Your task to perform on an android device: turn notification dots on Image 0: 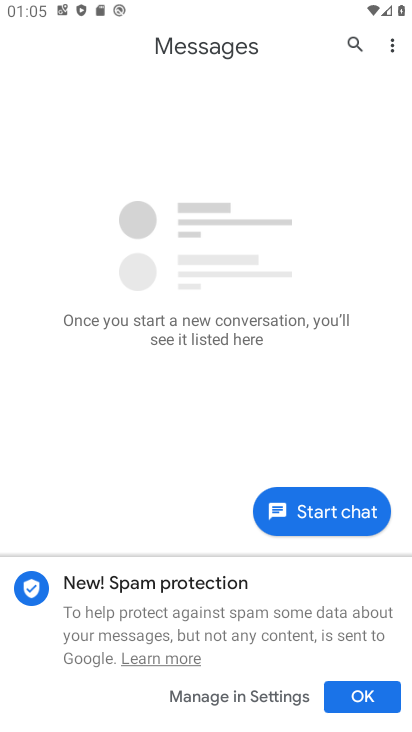
Step 0: press home button
Your task to perform on an android device: turn notification dots on Image 1: 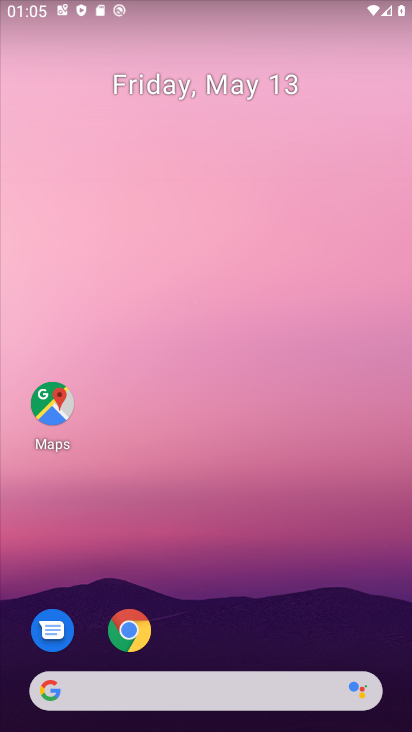
Step 1: drag from (180, 706) to (364, 104)
Your task to perform on an android device: turn notification dots on Image 2: 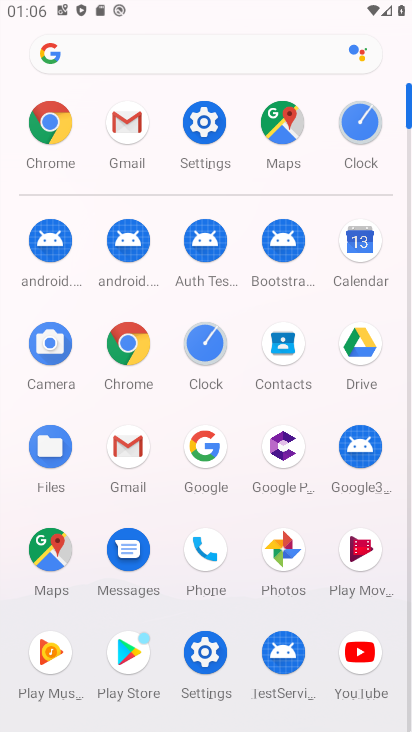
Step 2: click (217, 120)
Your task to perform on an android device: turn notification dots on Image 3: 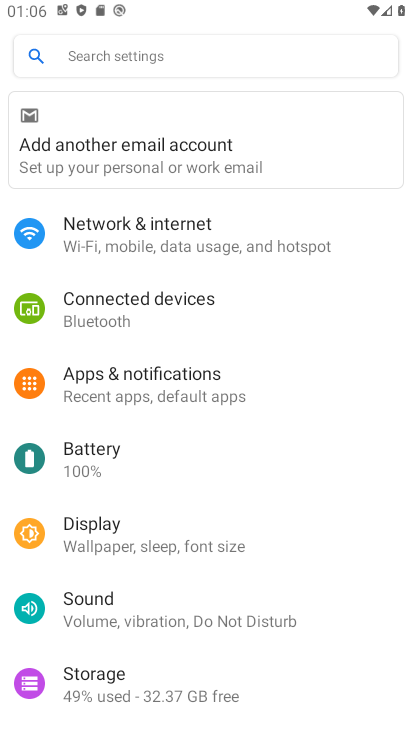
Step 3: click (151, 60)
Your task to perform on an android device: turn notification dots on Image 4: 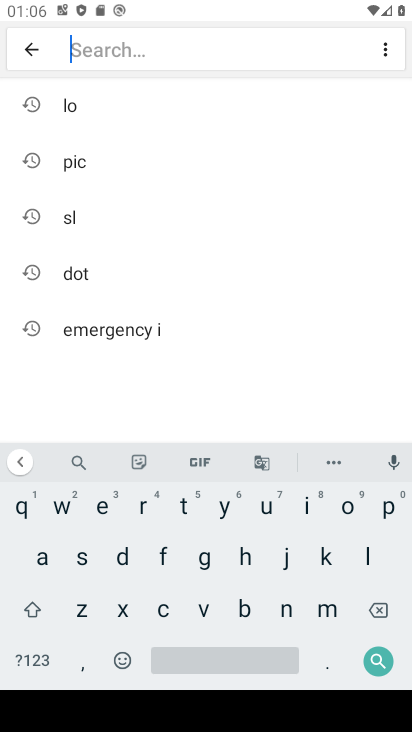
Step 4: click (111, 574)
Your task to perform on an android device: turn notification dots on Image 5: 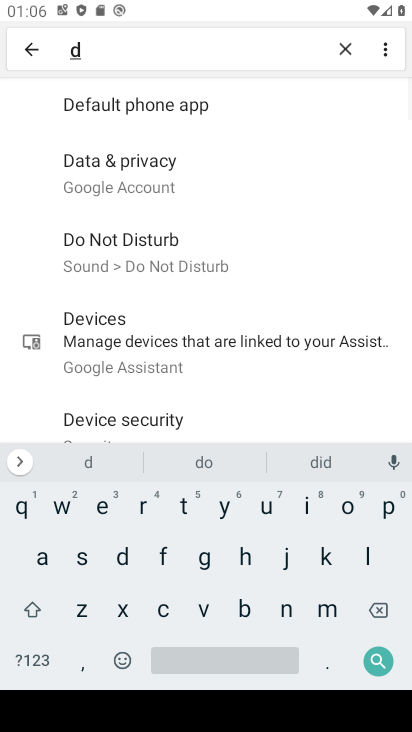
Step 5: click (344, 511)
Your task to perform on an android device: turn notification dots on Image 6: 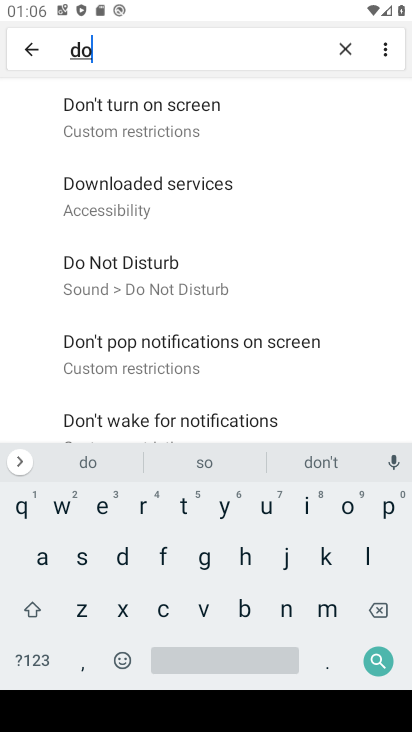
Step 6: click (176, 508)
Your task to perform on an android device: turn notification dots on Image 7: 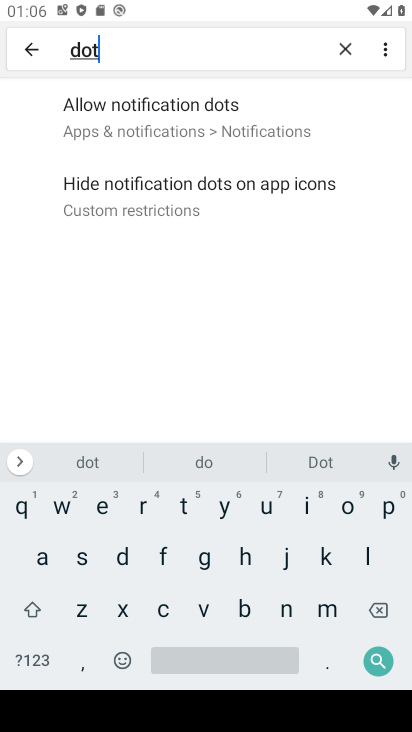
Step 7: click (174, 119)
Your task to perform on an android device: turn notification dots on Image 8: 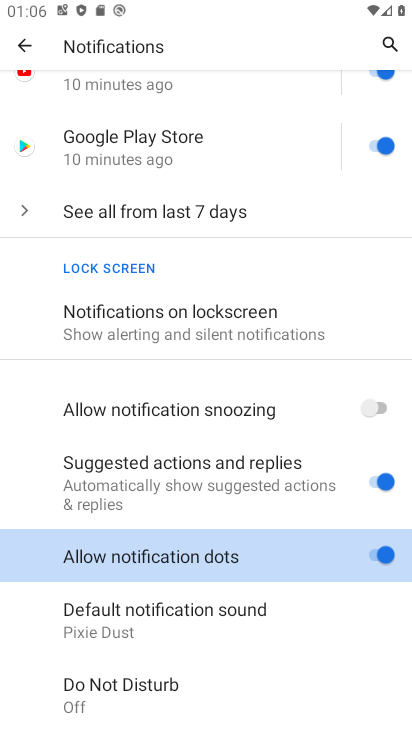
Step 8: click (214, 550)
Your task to perform on an android device: turn notification dots on Image 9: 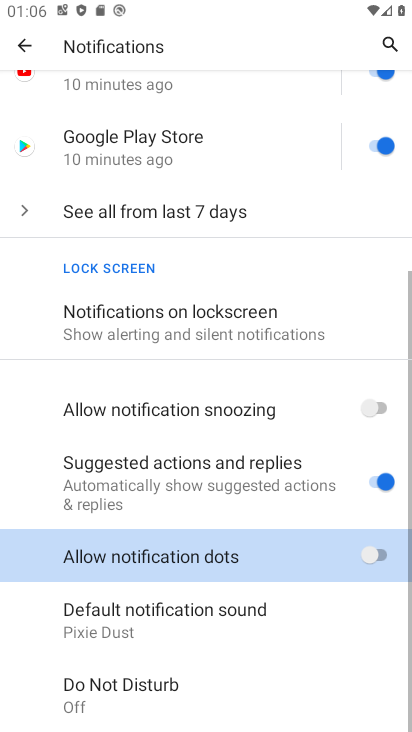
Step 9: click (216, 544)
Your task to perform on an android device: turn notification dots on Image 10: 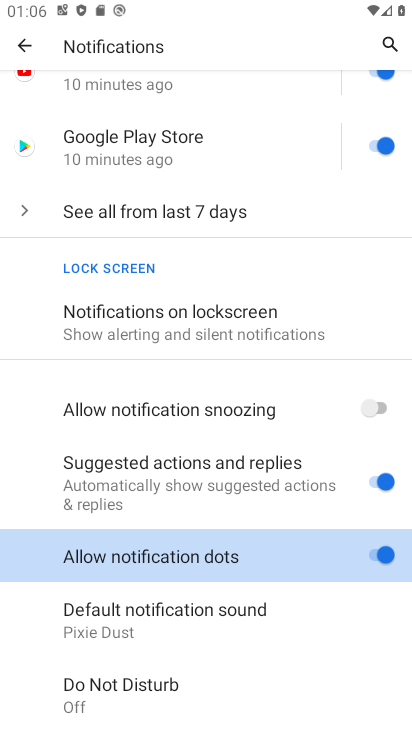
Step 10: task complete